Your task to perform on an android device: Is it going to rain this weekend? Image 0: 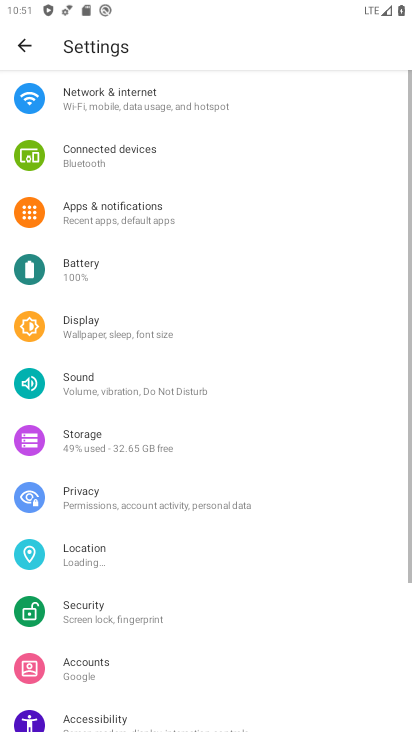
Step 0: press home button
Your task to perform on an android device: Is it going to rain this weekend? Image 1: 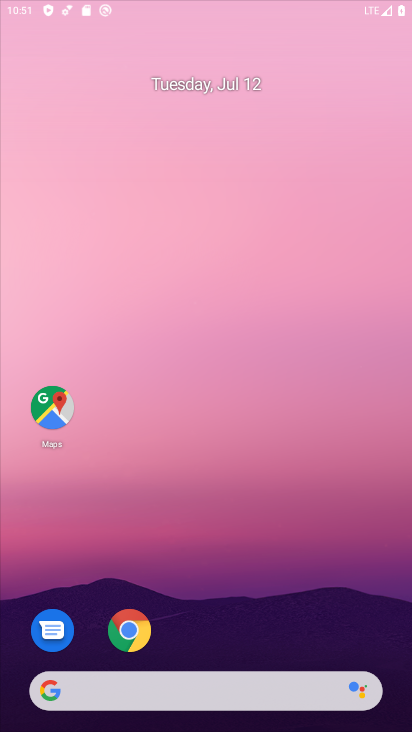
Step 1: drag from (374, 660) to (153, 603)
Your task to perform on an android device: Is it going to rain this weekend? Image 2: 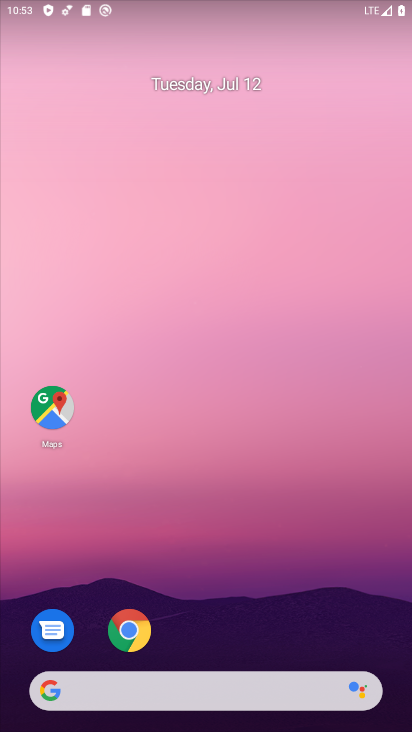
Step 2: drag from (145, 82) to (133, 21)
Your task to perform on an android device: Is it going to rain this weekend? Image 3: 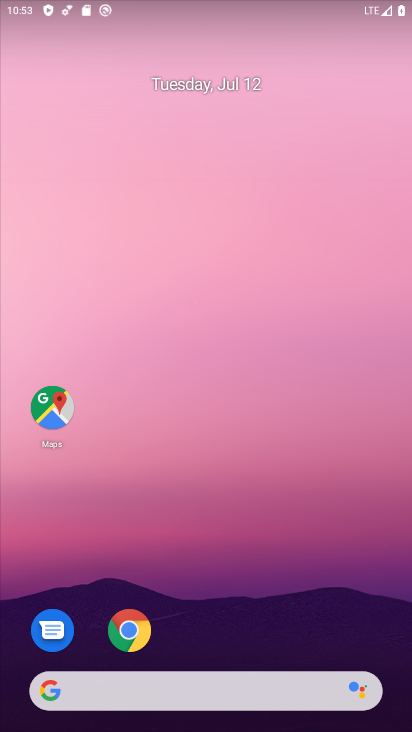
Step 3: drag from (361, 635) to (215, 13)
Your task to perform on an android device: Is it going to rain this weekend? Image 4: 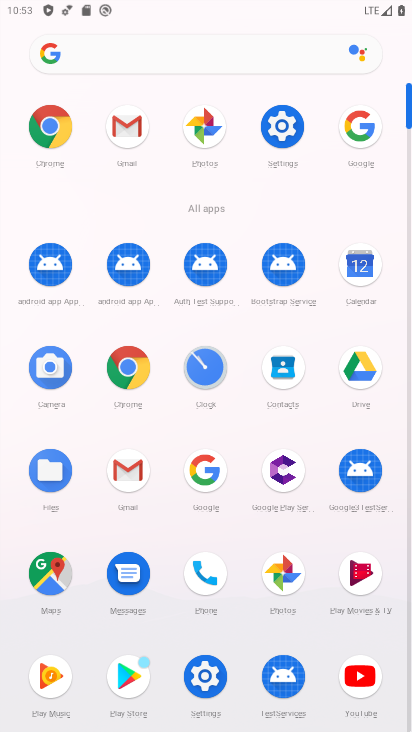
Step 4: click (203, 483)
Your task to perform on an android device: Is it going to rain this weekend? Image 5: 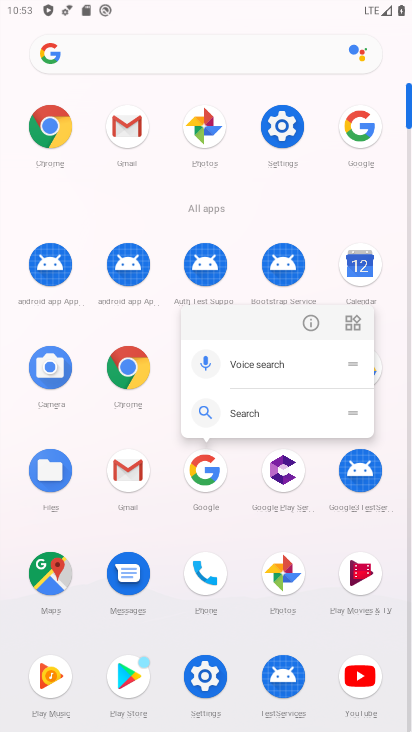
Step 5: click (203, 483)
Your task to perform on an android device: Is it going to rain this weekend? Image 6: 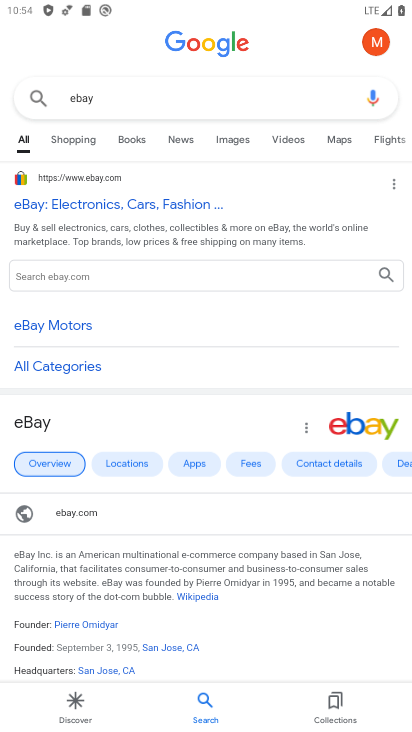
Step 6: press back button
Your task to perform on an android device: Is it going to rain this weekend? Image 7: 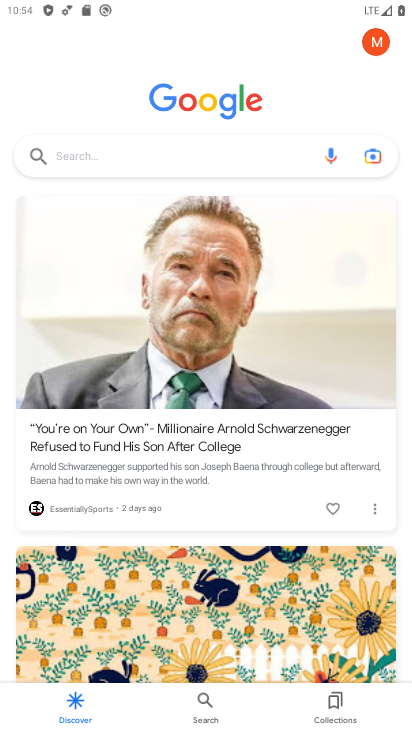
Step 7: click (119, 165)
Your task to perform on an android device: Is it going to rain this weekend? Image 8: 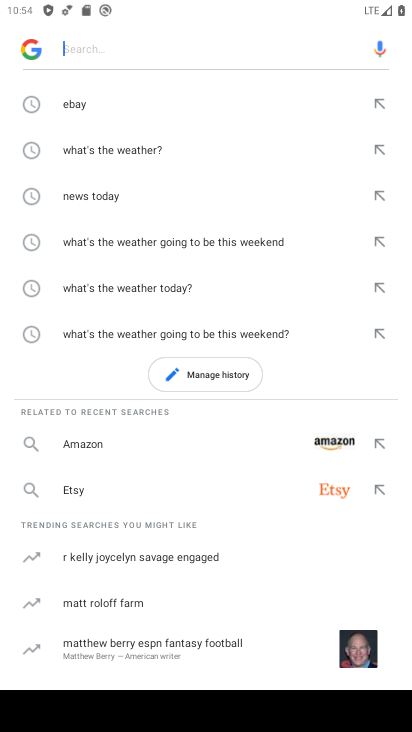
Step 8: click (195, 239)
Your task to perform on an android device: Is it going to rain this weekend? Image 9: 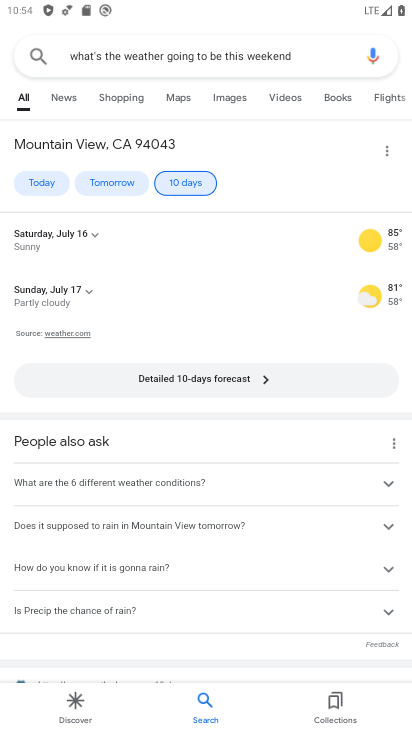
Step 9: task complete